Your task to perform on an android device: Go to Maps Image 0: 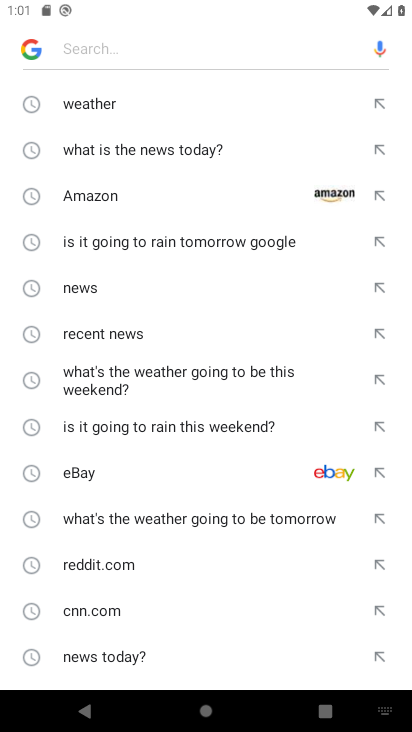
Step 0: drag from (280, 615) to (259, 301)
Your task to perform on an android device: Go to Maps Image 1: 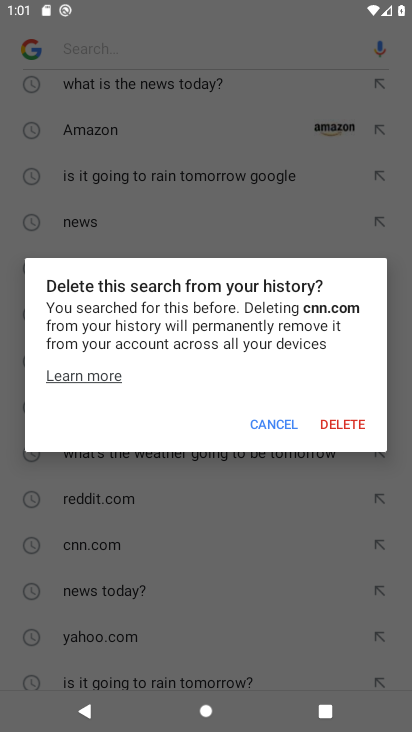
Step 1: press home button
Your task to perform on an android device: Go to Maps Image 2: 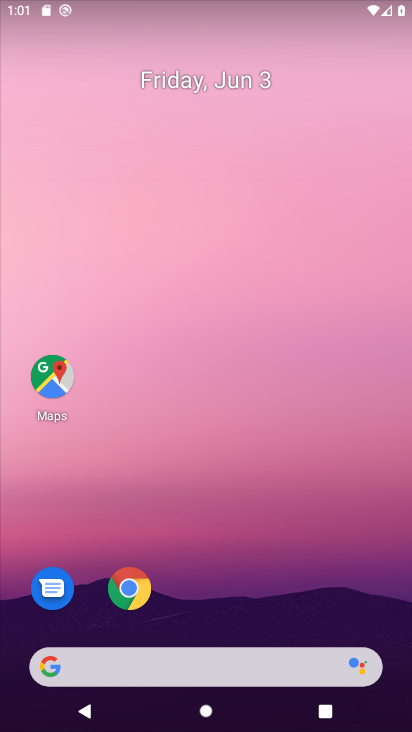
Step 2: click (59, 386)
Your task to perform on an android device: Go to Maps Image 3: 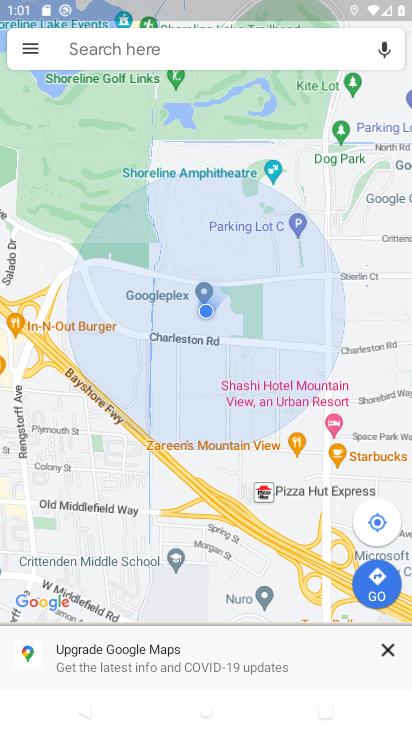
Step 3: task complete